Your task to perform on an android device: turn off smart reply in the gmail app Image 0: 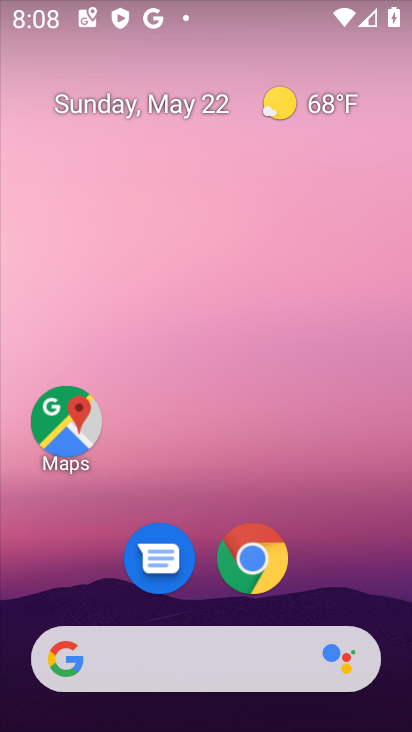
Step 0: drag from (377, 514) to (393, 221)
Your task to perform on an android device: turn off smart reply in the gmail app Image 1: 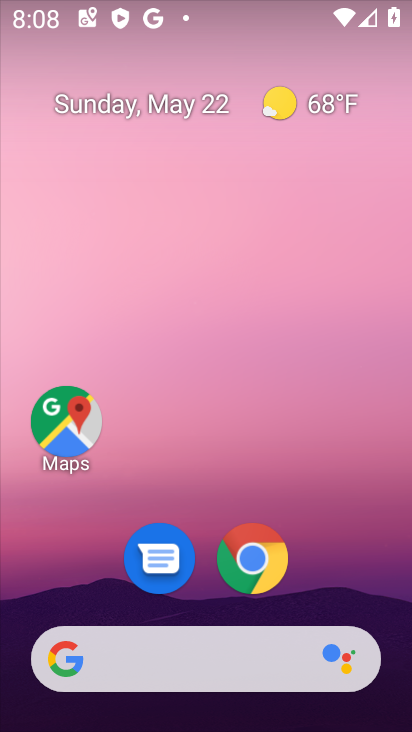
Step 1: drag from (325, 441) to (289, 233)
Your task to perform on an android device: turn off smart reply in the gmail app Image 2: 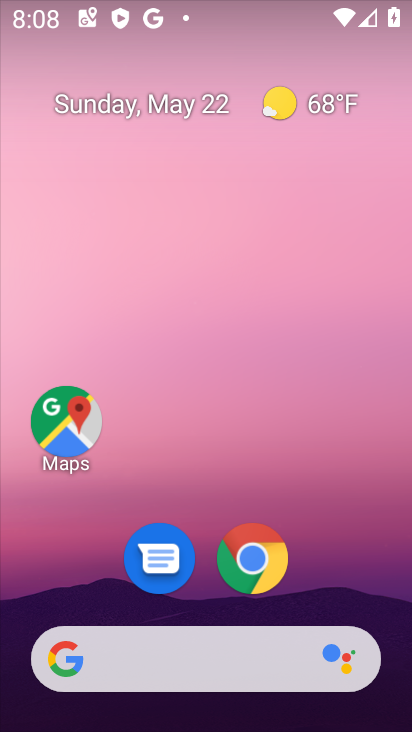
Step 2: drag from (322, 552) to (359, 112)
Your task to perform on an android device: turn off smart reply in the gmail app Image 3: 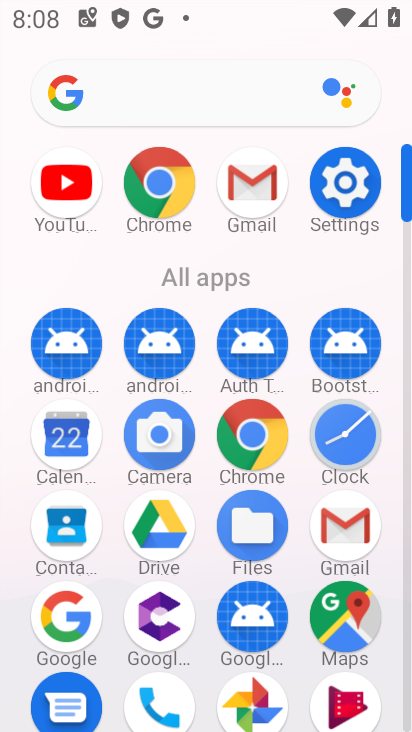
Step 3: click (331, 513)
Your task to perform on an android device: turn off smart reply in the gmail app Image 4: 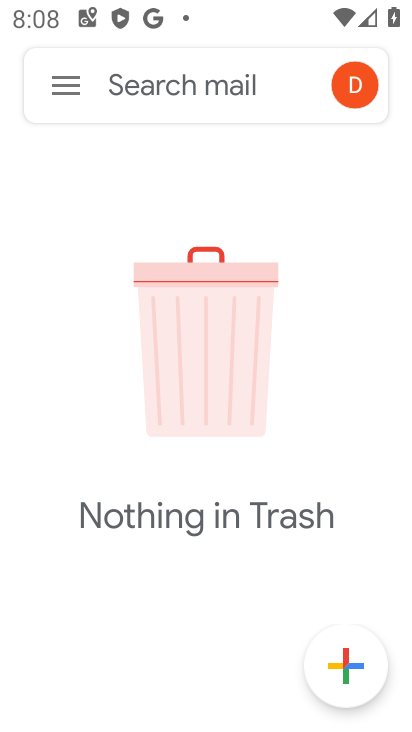
Step 4: click (54, 82)
Your task to perform on an android device: turn off smart reply in the gmail app Image 5: 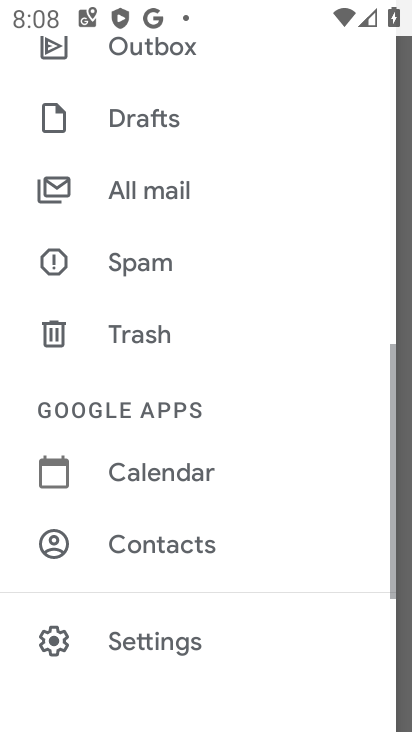
Step 5: click (171, 631)
Your task to perform on an android device: turn off smart reply in the gmail app Image 6: 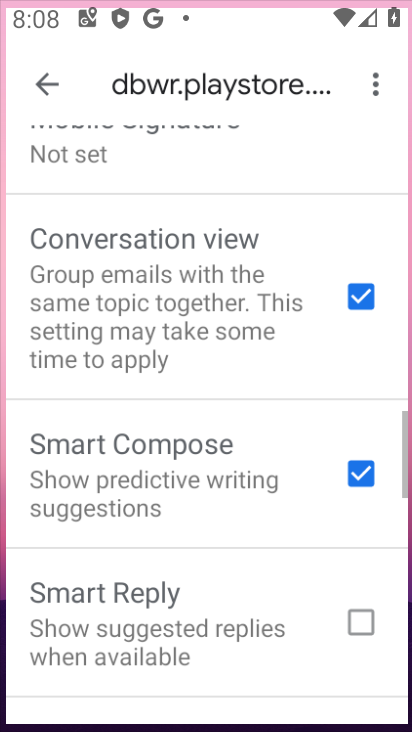
Step 6: task complete